Your task to perform on an android device: turn on priority inbox in the gmail app Image 0: 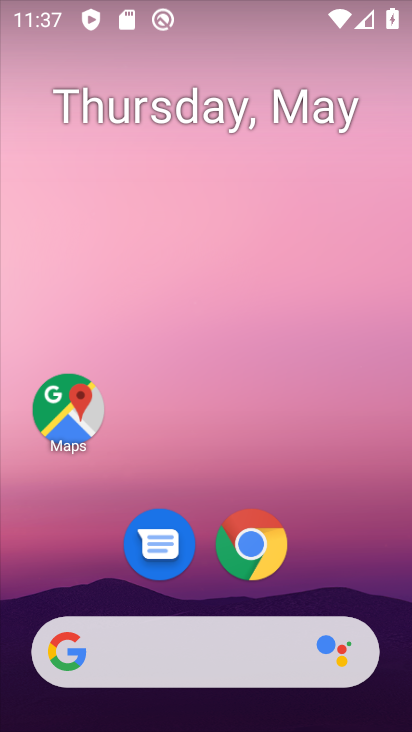
Step 0: drag from (215, 555) to (238, 300)
Your task to perform on an android device: turn on priority inbox in the gmail app Image 1: 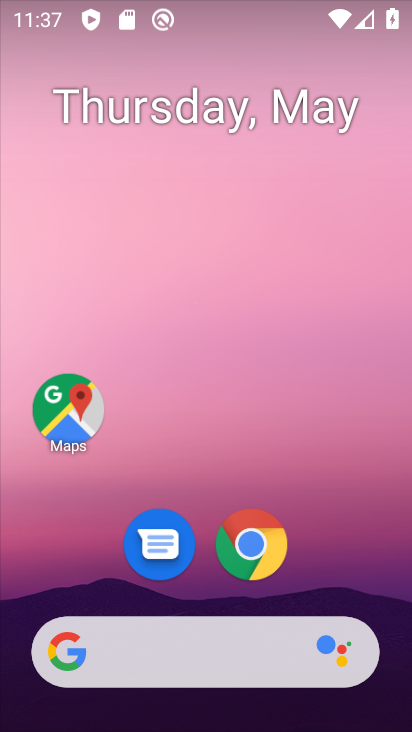
Step 1: drag from (208, 555) to (287, 134)
Your task to perform on an android device: turn on priority inbox in the gmail app Image 2: 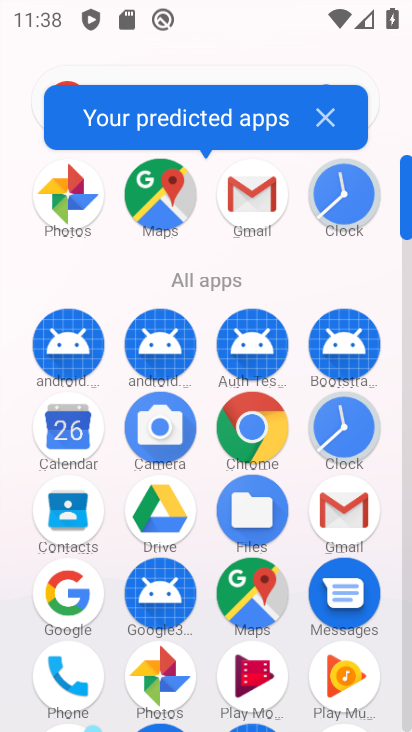
Step 2: click (352, 502)
Your task to perform on an android device: turn on priority inbox in the gmail app Image 3: 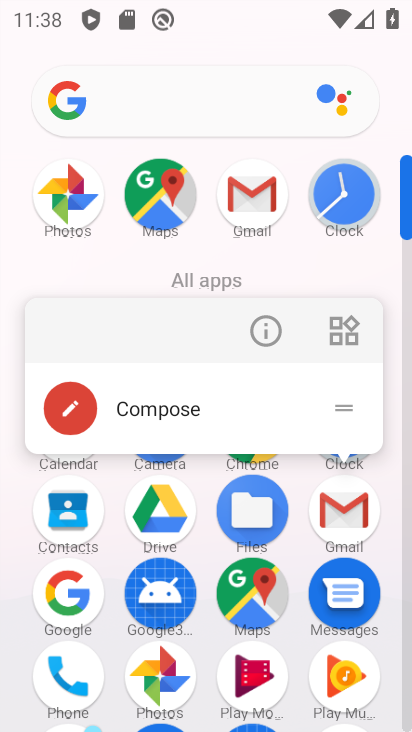
Step 3: click (266, 332)
Your task to perform on an android device: turn on priority inbox in the gmail app Image 4: 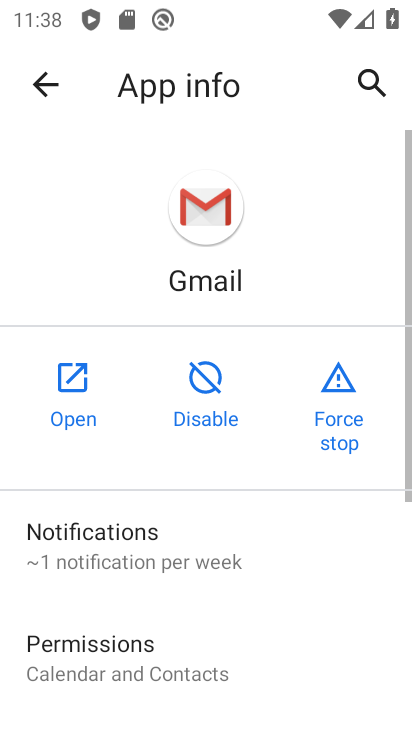
Step 4: click (76, 380)
Your task to perform on an android device: turn on priority inbox in the gmail app Image 5: 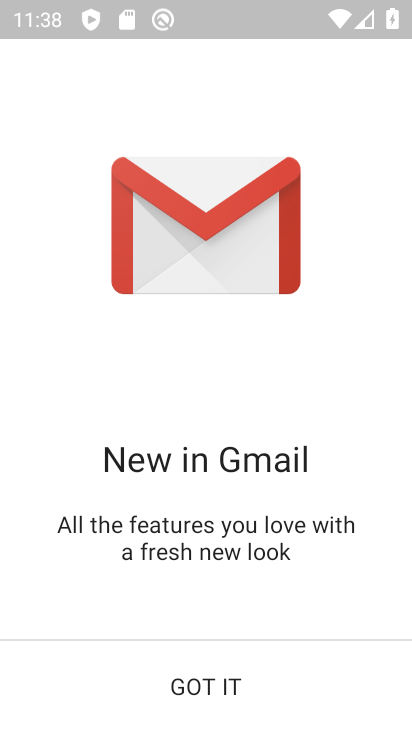
Step 5: click (203, 683)
Your task to perform on an android device: turn on priority inbox in the gmail app Image 6: 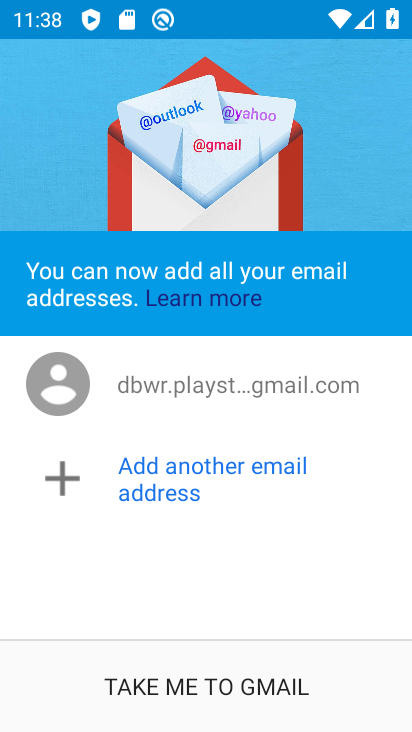
Step 6: click (167, 669)
Your task to perform on an android device: turn on priority inbox in the gmail app Image 7: 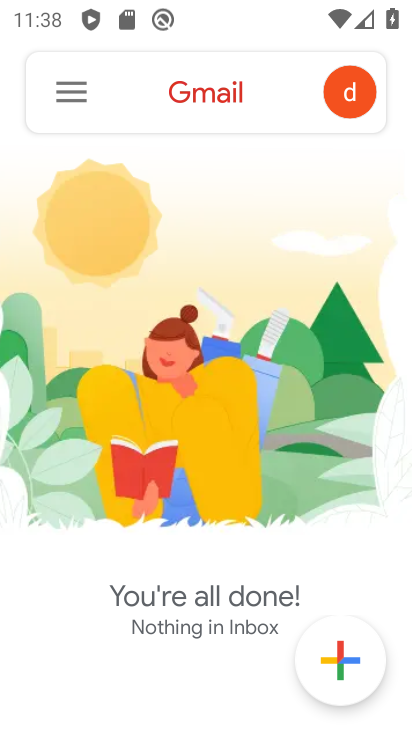
Step 7: click (79, 82)
Your task to perform on an android device: turn on priority inbox in the gmail app Image 8: 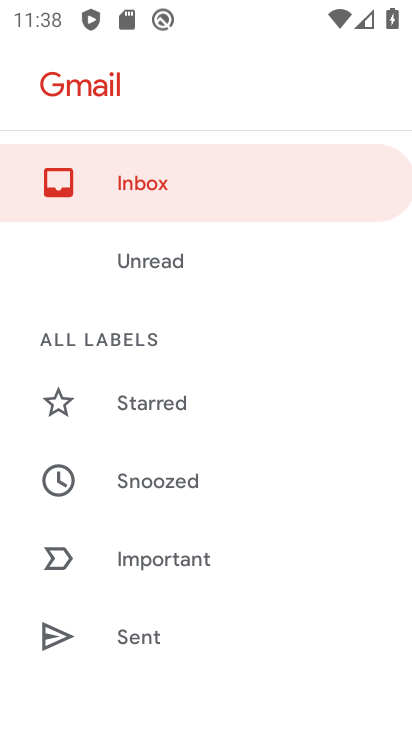
Step 8: drag from (143, 622) to (266, 0)
Your task to perform on an android device: turn on priority inbox in the gmail app Image 9: 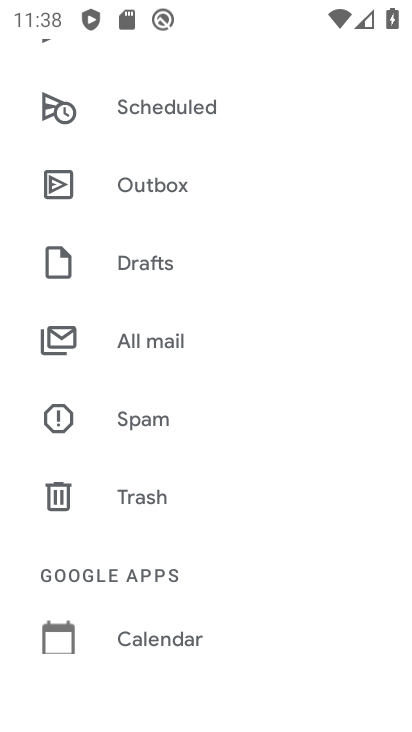
Step 9: drag from (192, 562) to (275, 73)
Your task to perform on an android device: turn on priority inbox in the gmail app Image 10: 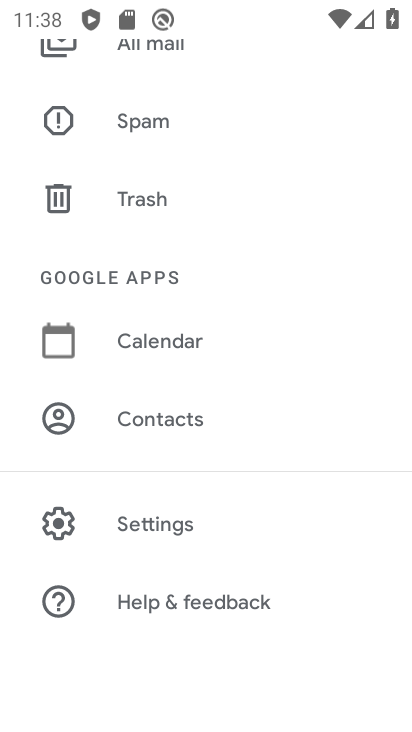
Step 10: click (162, 539)
Your task to perform on an android device: turn on priority inbox in the gmail app Image 11: 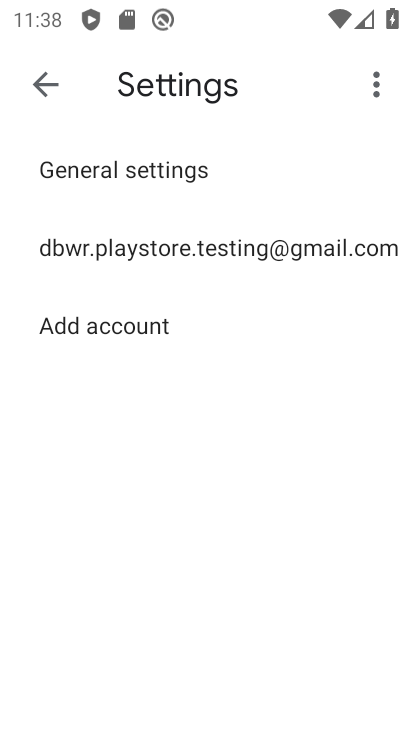
Step 11: click (162, 244)
Your task to perform on an android device: turn on priority inbox in the gmail app Image 12: 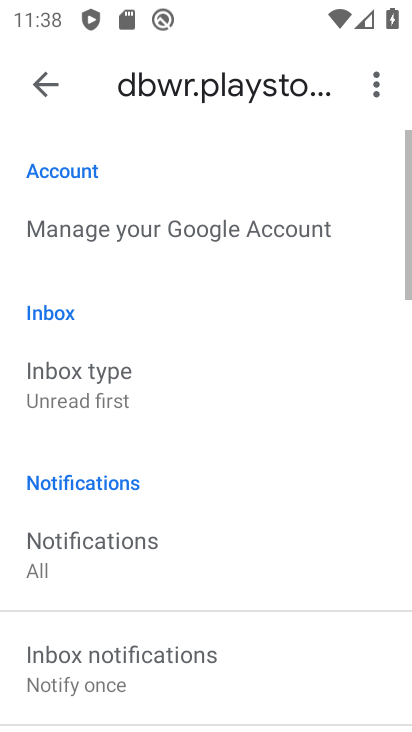
Step 12: click (109, 392)
Your task to perform on an android device: turn on priority inbox in the gmail app Image 13: 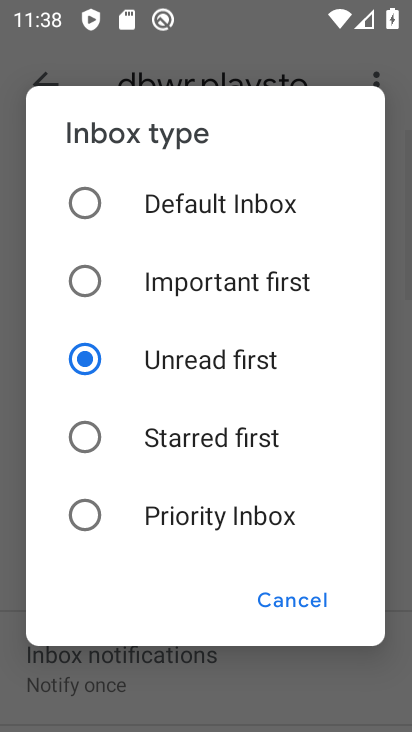
Step 13: click (199, 512)
Your task to perform on an android device: turn on priority inbox in the gmail app Image 14: 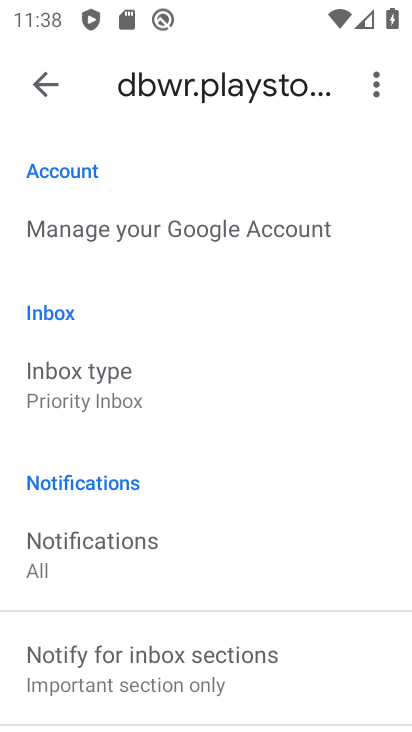
Step 14: task complete